Your task to perform on an android device: Open the calendar app, open the side menu, and click the "Day" option Image 0: 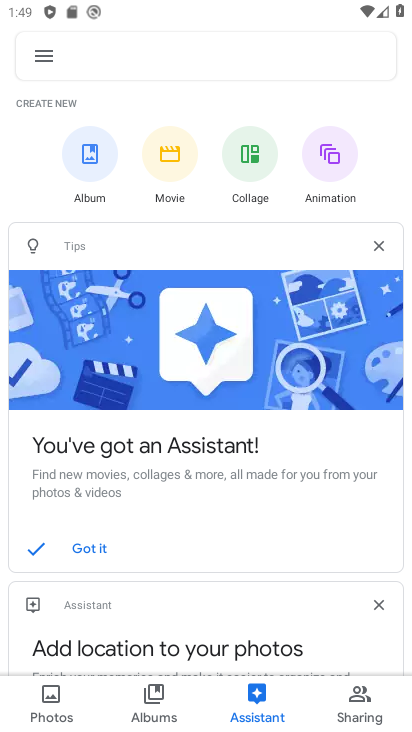
Step 0: task complete